Your task to perform on an android device: Open accessibility settings Image 0: 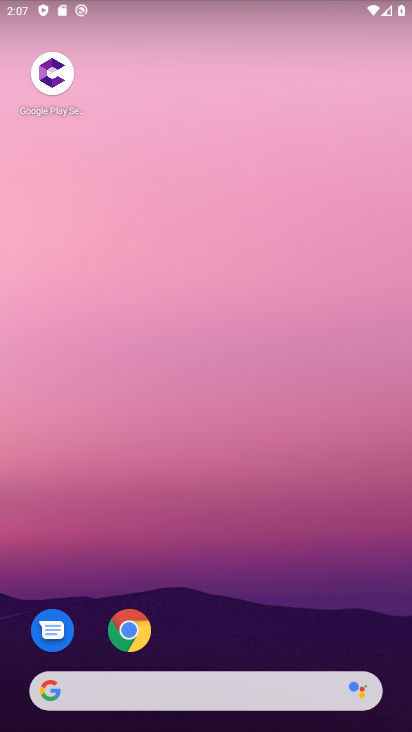
Step 0: drag from (289, 636) to (273, 282)
Your task to perform on an android device: Open accessibility settings Image 1: 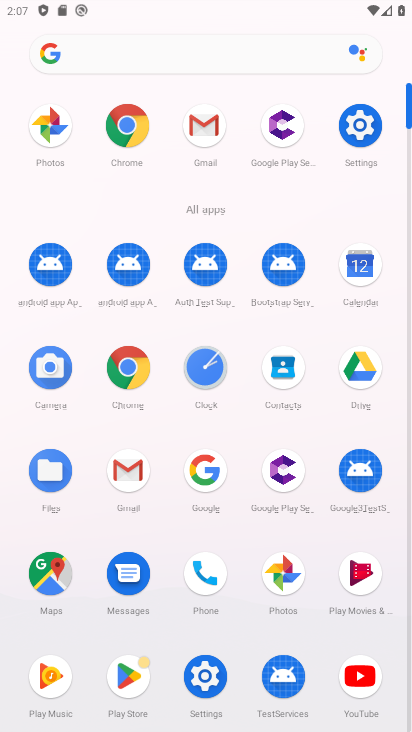
Step 1: click (203, 673)
Your task to perform on an android device: Open accessibility settings Image 2: 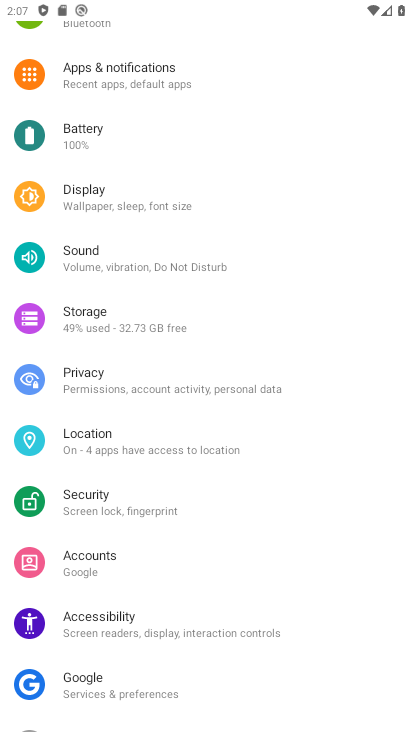
Step 2: click (104, 614)
Your task to perform on an android device: Open accessibility settings Image 3: 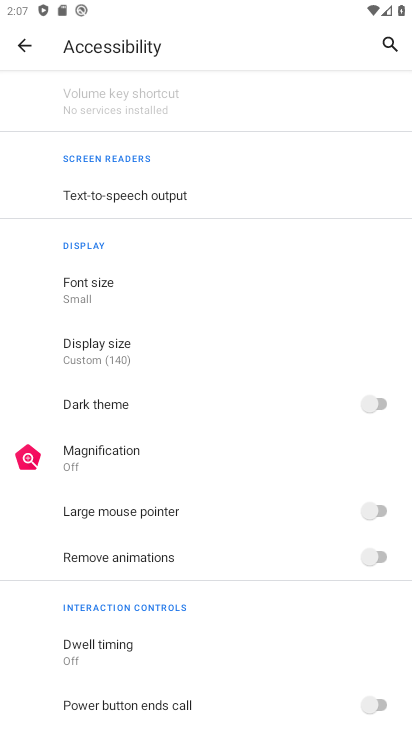
Step 3: task complete